Your task to perform on an android device: empty trash in the gmail app Image 0: 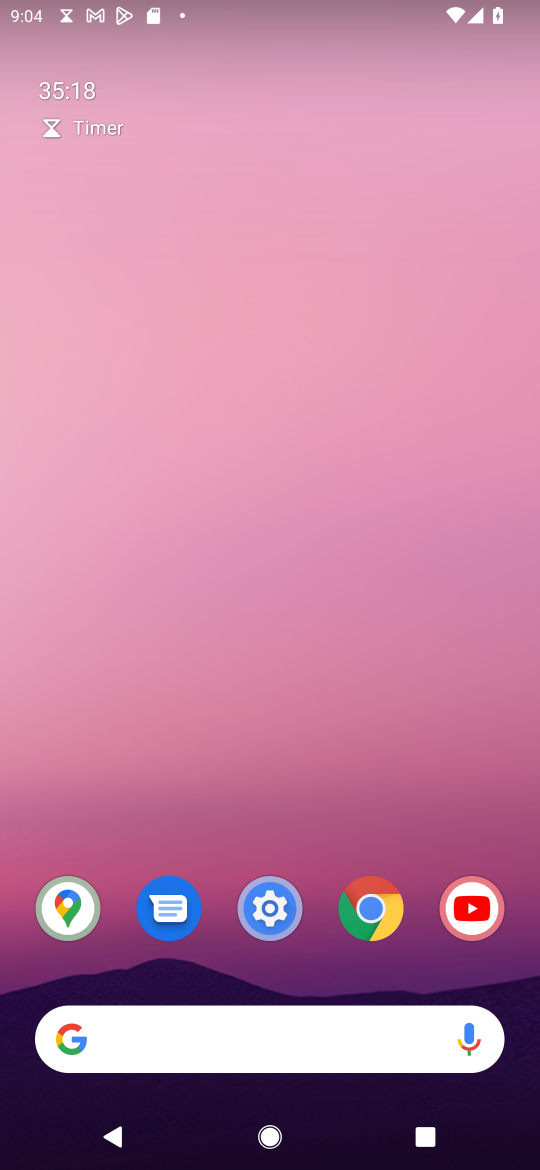
Step 0: drag from (301, 1031) to (195, 6)
Your task to perform on an android device: empty trash in the gmail app Image 1: 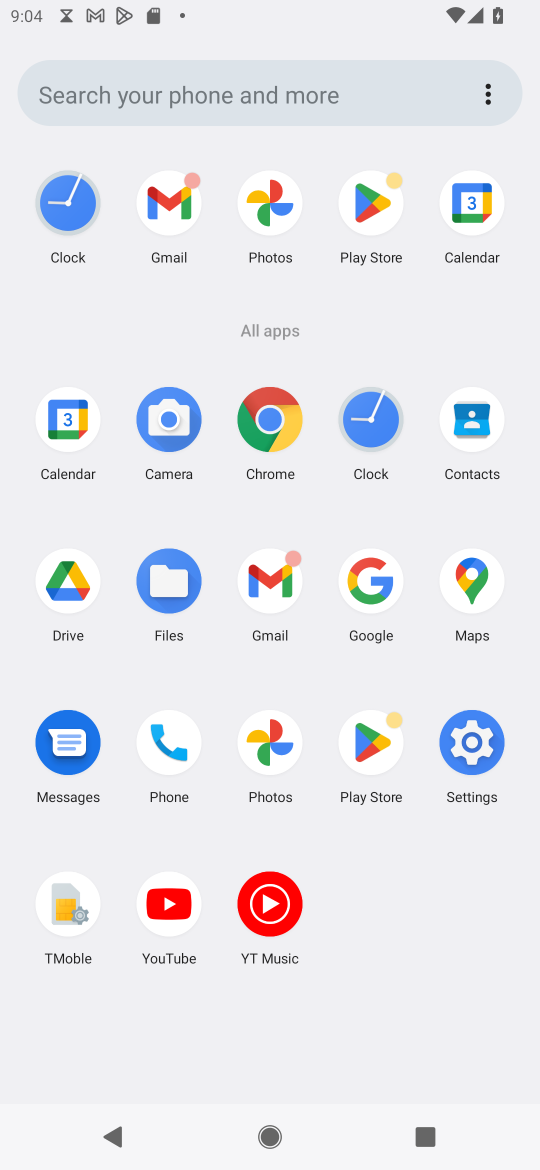
Step 1: click (286, 555)
Your task to perform on an android device: empty trash in the gmail app Image 2: 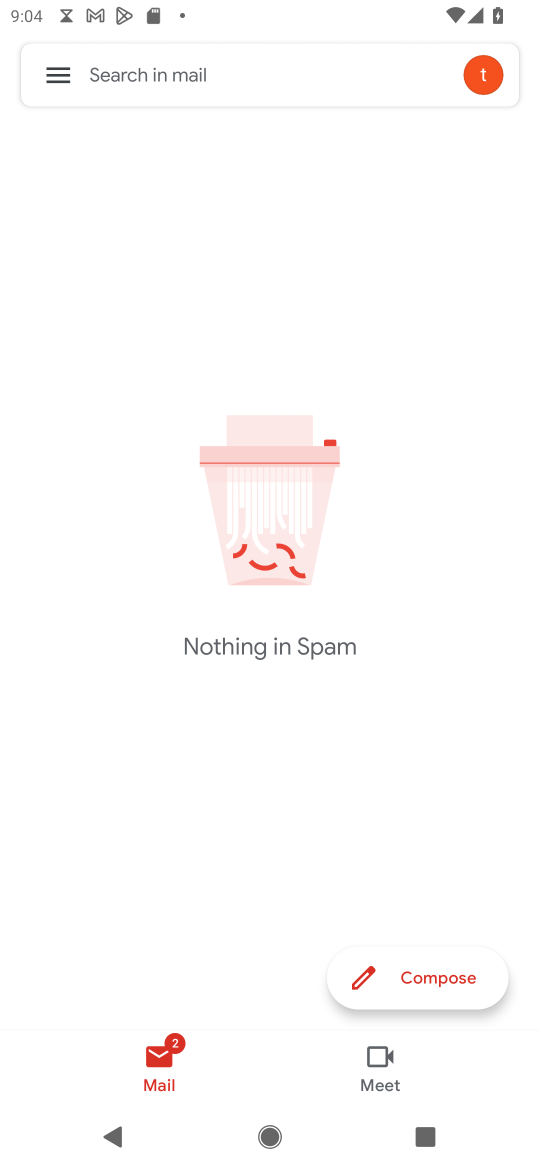
Step 2: click (331, 555)
Your task to perform on an android device: empty trash in the gmail app Image 3: 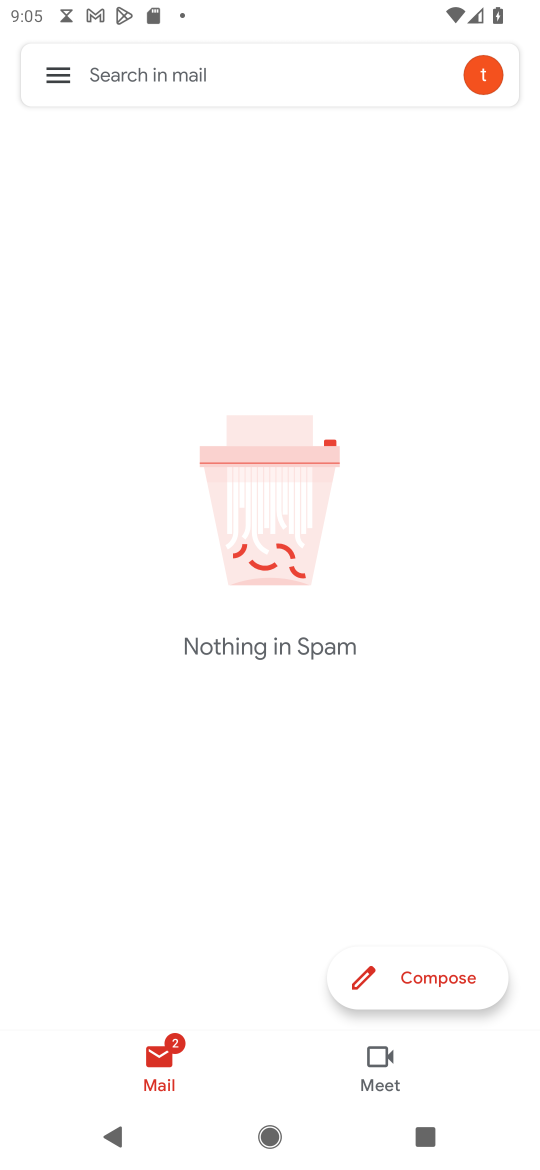
Step 3: click (49, 78)
Your task to perform on an android device: empty trash in the gmail app Image 4: 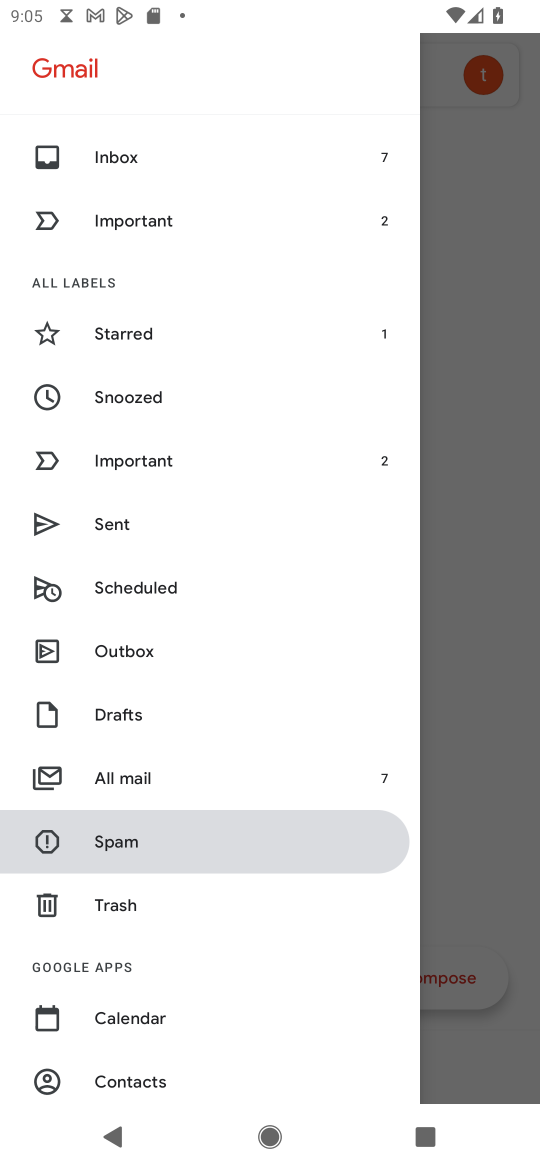
Step 4: click (153, 902)
Your task to perform on an android device: empty trash in the gmail app Image 5: 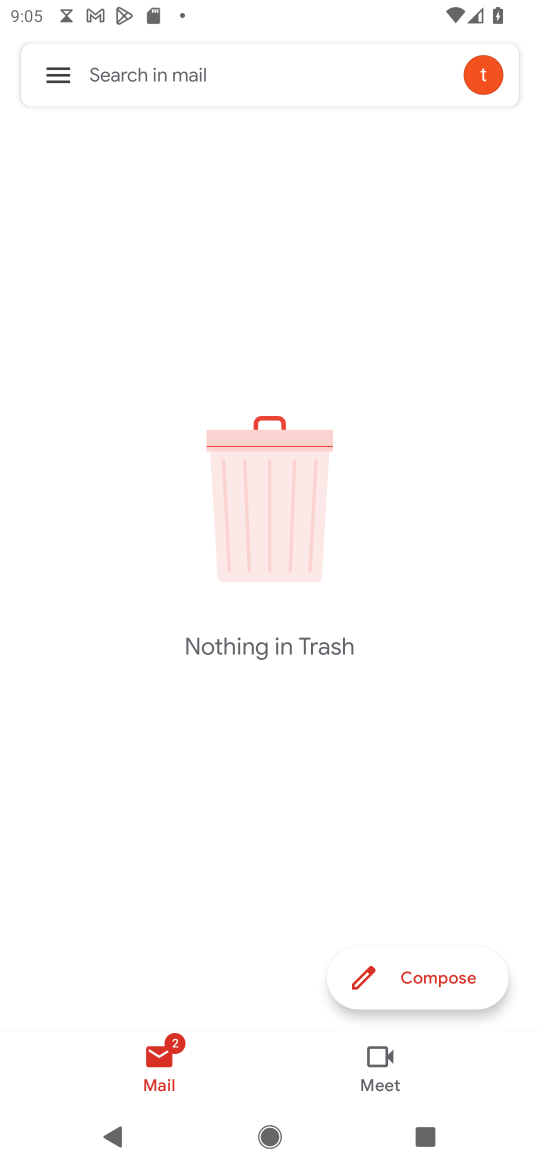
Step 5: task complete